Your task to perform on an android device: turn on airplane mode Image 0: 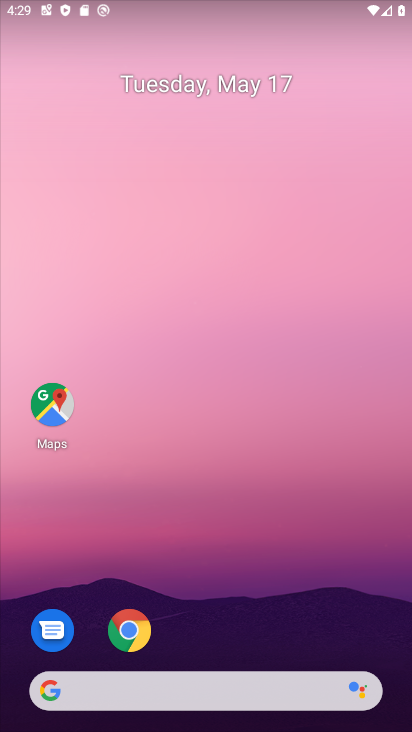
Step 0: drag from (240, 724) to (228, 233)
Your task to perform on an android device: turn on airplane mode Image 1: 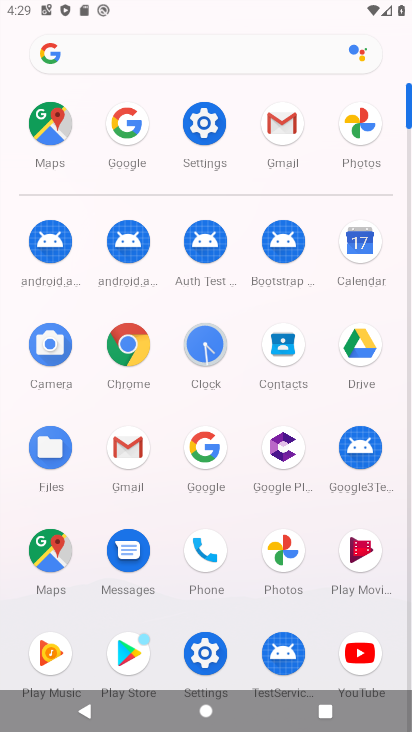
Step 1: click (201, 121)
Your task to perform on an android device: turn on airplane mode Image 2: 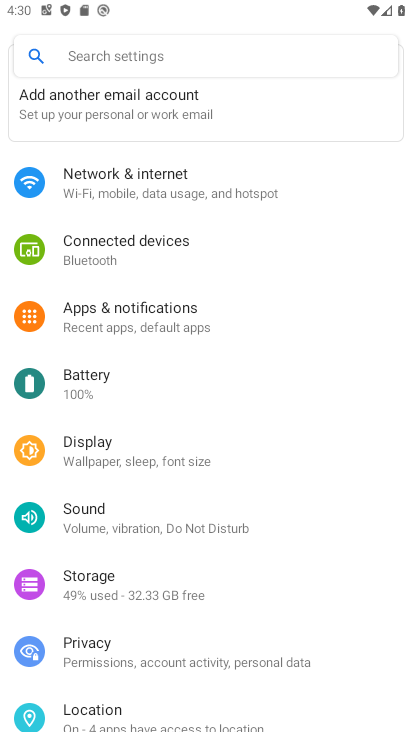
Step 2: click (136, 180)
Your task to perform on an android device: turn on airplane mode Image 3: 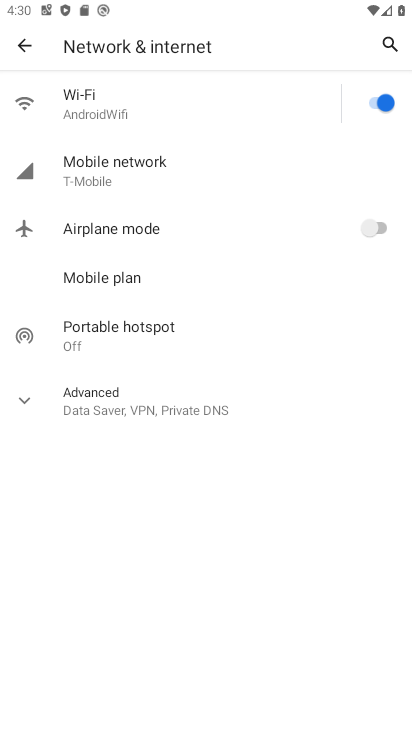
Step 3: click (381, 220)
Your task to perform on an android device: turn on airplane mode Image 4: 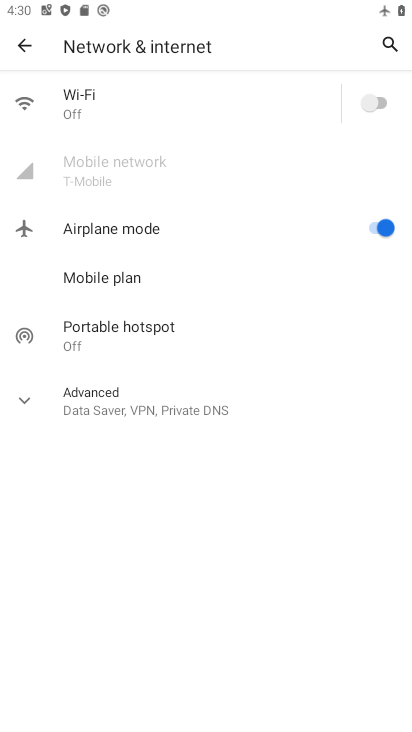
Step 4: task complete